Your task to perform on an android device: open chrome privacy settings Image 0: 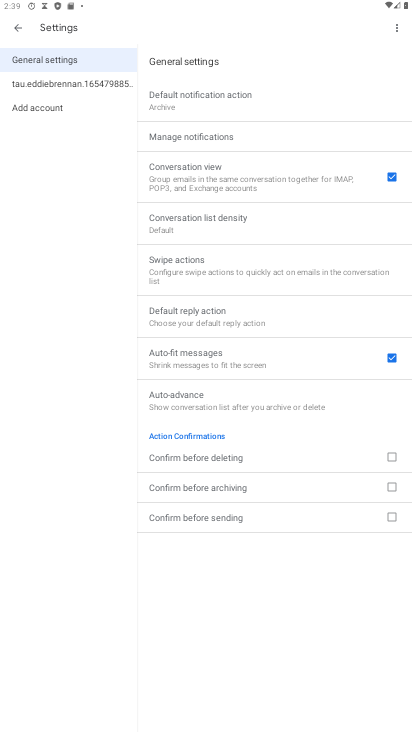
Step 0: press home button
Your task to perform on an android device: open chrome privacy settings Image 1: 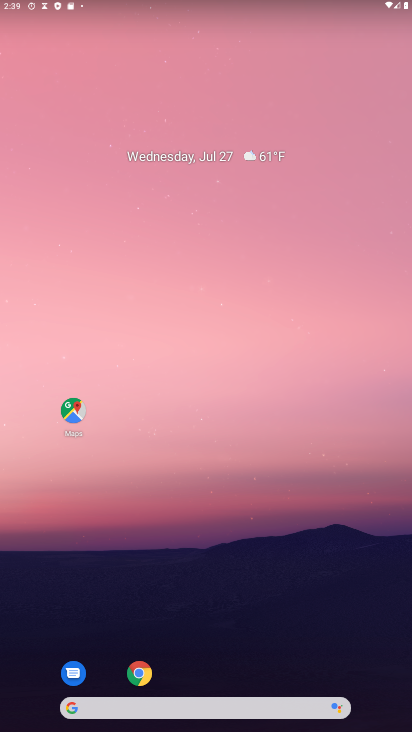
Step 1: drag from (46, 655) to (212, 112)
Your task to perform on an android device: open chrome privacy settings Image 2: 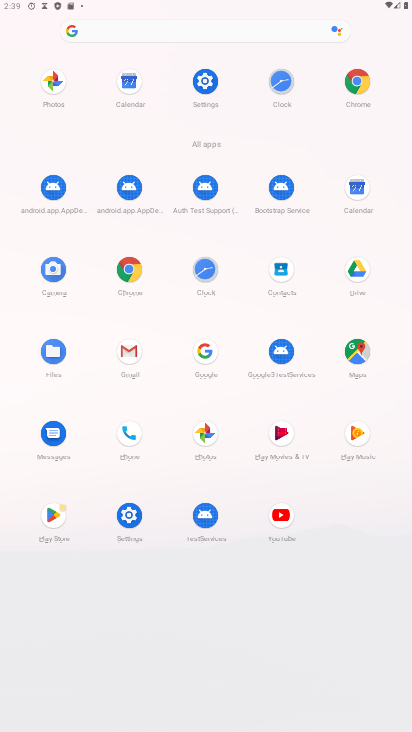
Step 2: click (129, 279)
Your task to perform on an android device: open chrome privacy settings Image 3: 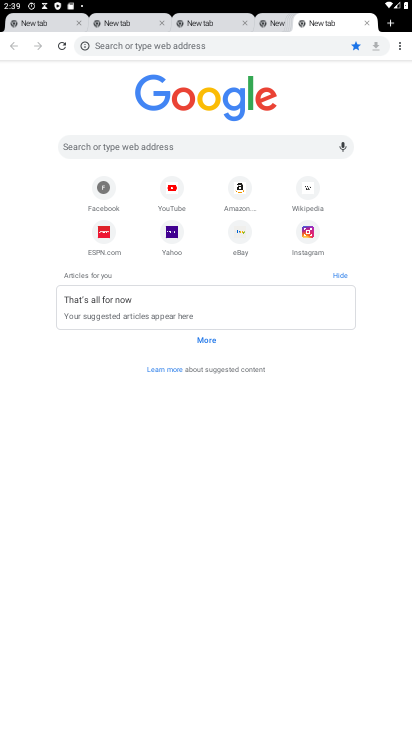
Step 3: click (396, 45)
Your task to perform on an android device: open chrome privacy settings Image 4: 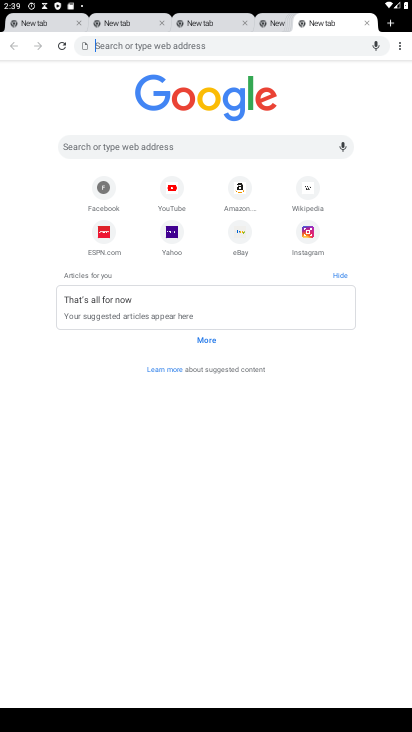
Step 4: click (399, 48)
Your task to perform on an android device: open chrome privacy settings Image 5: 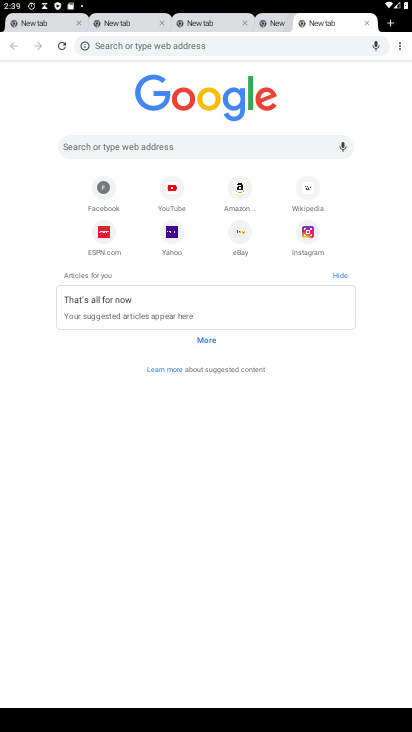
Step 5: click (399, 48)
Your task to perform on an android device: open chrome privacy settings Image 6: 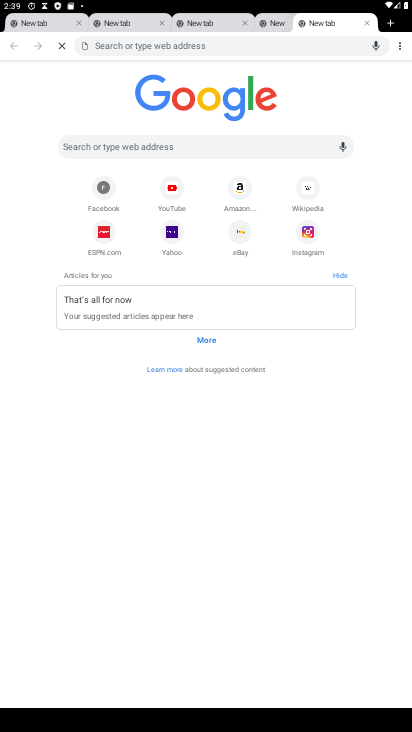
Step 6: click (399, 48)
Your task to perform on an android device: open chrome privacy settings Image 7: 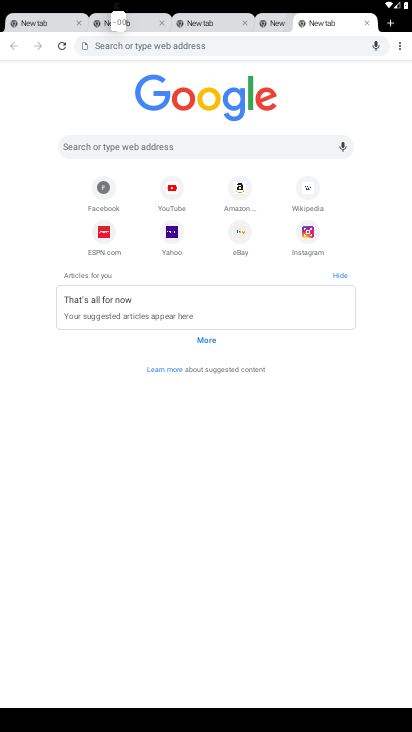
Step 7: task complete